Your task to perform on an android device: Open privacy settings Image 0: 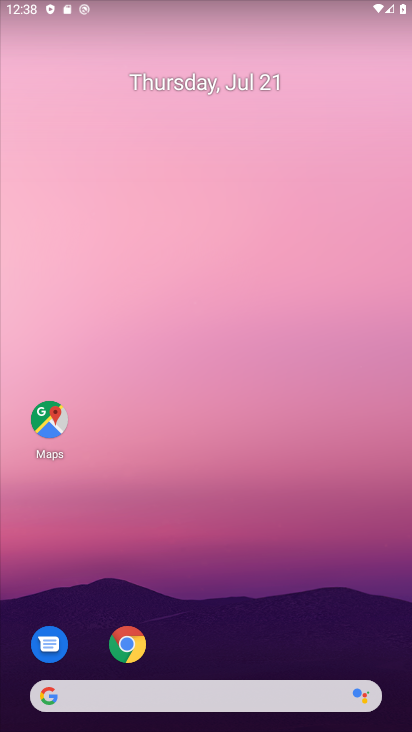
Step 0: drag from (281, 573) to (386, 17)
Your task to perform on an android device: Open privacy settings Image 1: 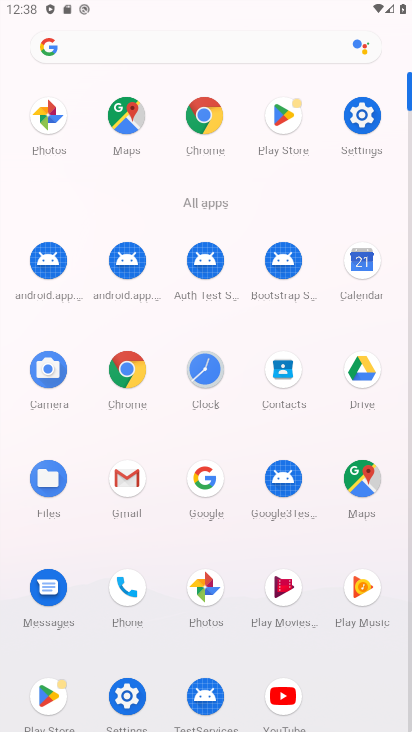
Step 1: click (131, 688)
Your task to perform on an android device: Open privacy settings Image 2: 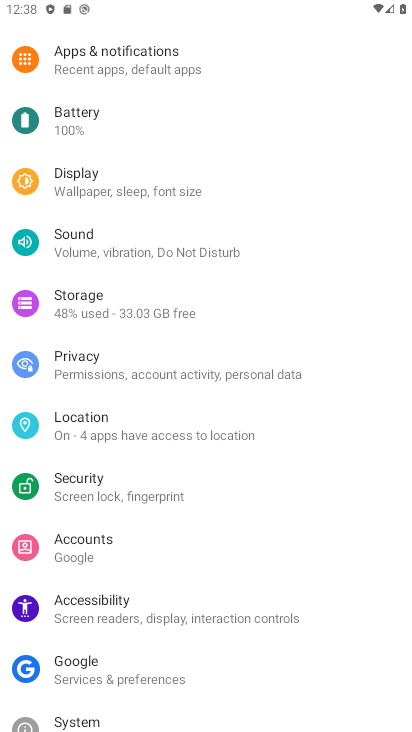
Step 2: click (76, 368)
Your task to perform on an android device: Open privacy settings Image 3: 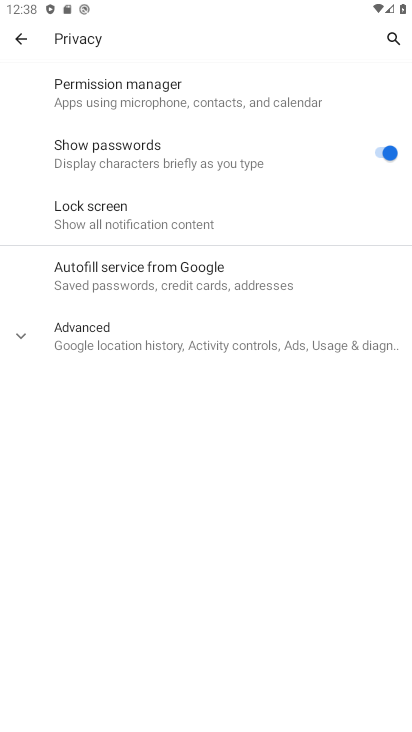
Step 3: task complete